Your task to perform on an android device: Show me the alarms in the clock app Image 0: 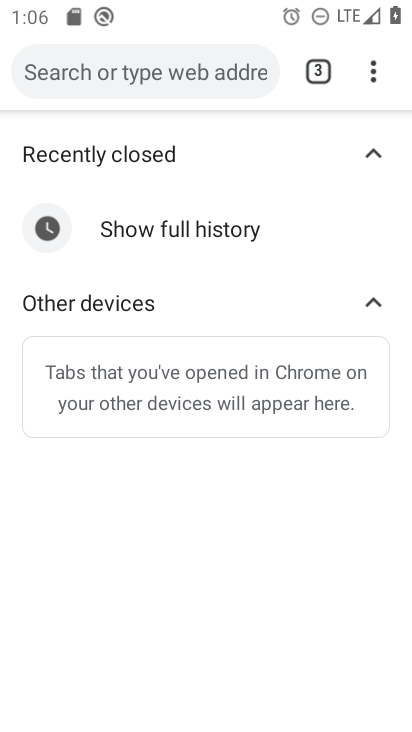
Step 0: press home button
Your task to perform on an android device: Show me the alarms in the clock app Image 1: 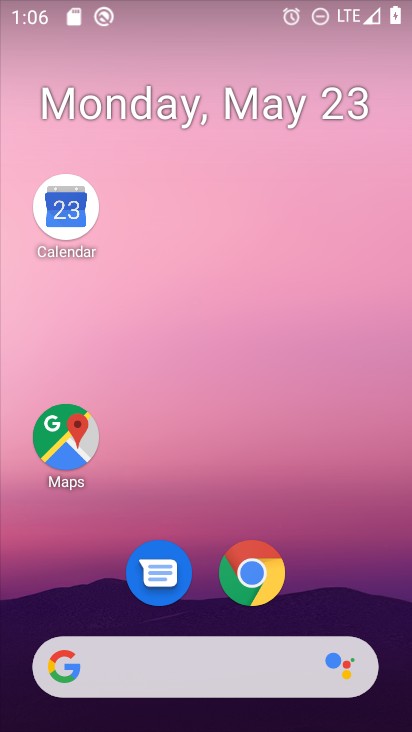
Step 1: drag from (328, 615) to (309, 135)
Your task to perform on an android device: Show me the alarms in the clock app Image 2: 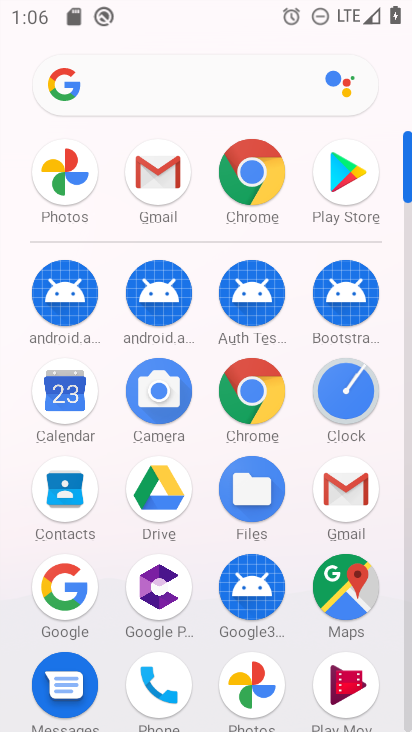
Step 2: click (345, 388)
Your task to perform on an android device: Show me the alarms in the clock app Image 3: 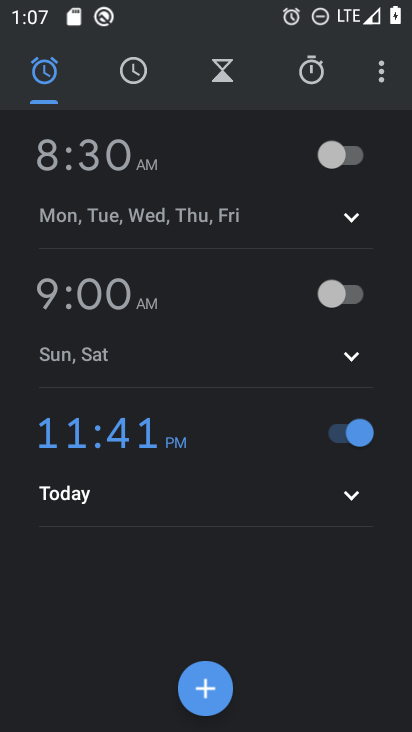
Step 3: task complete